Your task to perform on an android device: choose inbox layout in the gmail app Image 0: 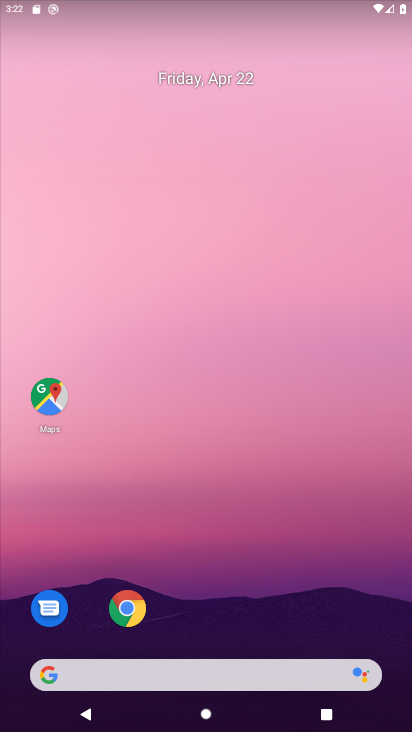
Step 0: drag from (255, 610) to (197, 184)
Your task to perform on an android device: choose inbox layout in the gmail app Image 1: 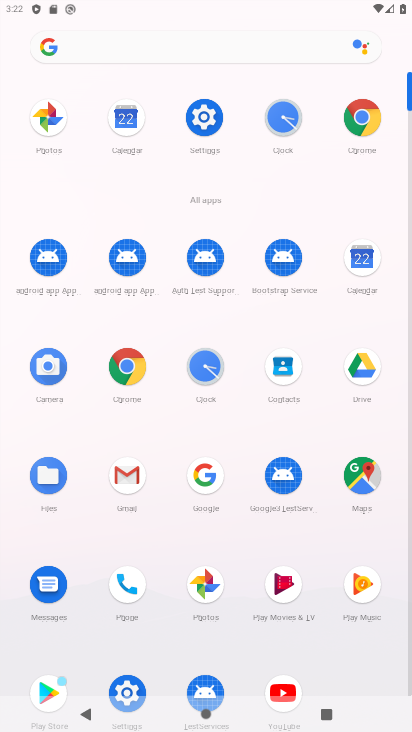
Step 1: click (121, 471)
Your task to perform on an android device: choose inbox layout in the gmail app Image 2: 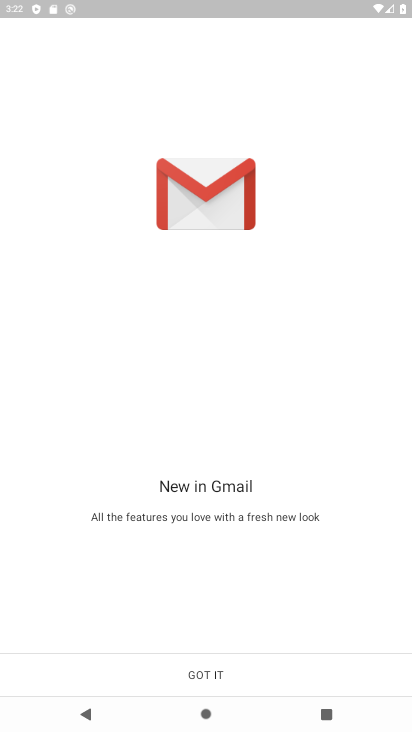
Step 2: click (216, 683)
Your task to perform on an android device: choose inbox layout in the gmail app Image 3: 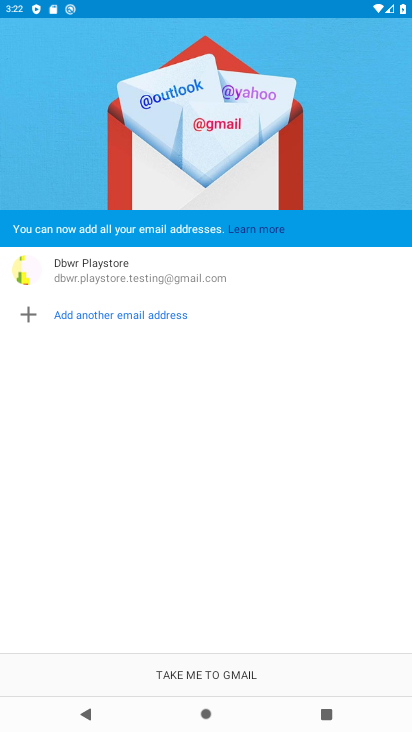
Step 3: click (216, 683)
Your task to perform on an android device: choose inbox layout in the gmail app Image 4: 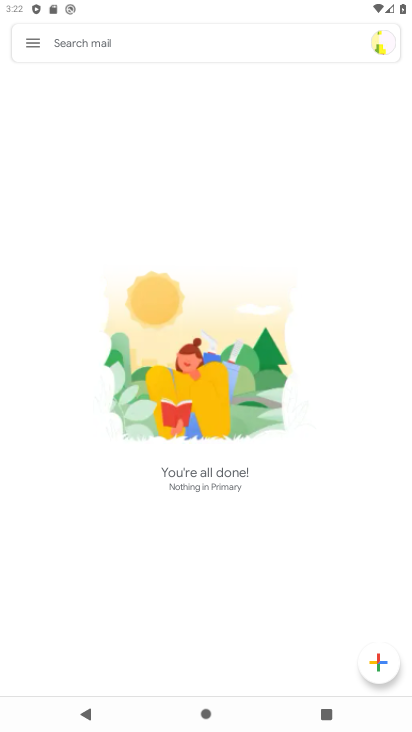
Step 4: click (32, 49)
Your task to perform on an android device: choose inbox layout in the gmail app Image 5: 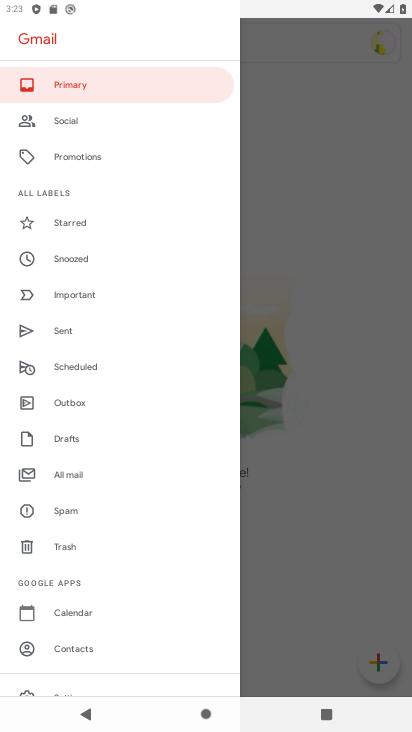
Step 5: drag from (168, 658) to (130, 327)
Your task to perform on an android device: choose inbox layout in the gmail app Image 6: 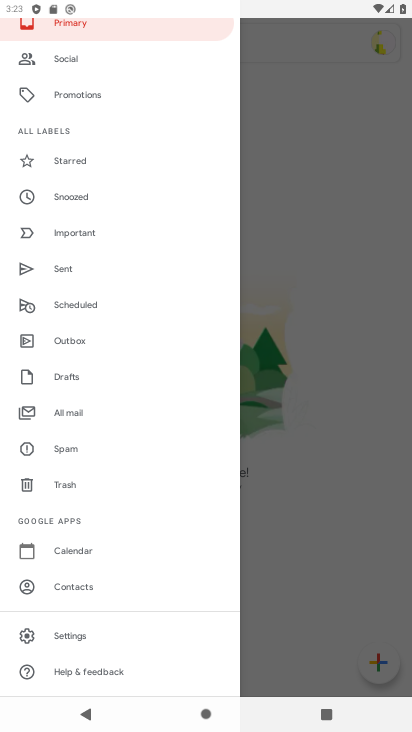
Step 6: click (123, 639)
Your task to perform on an android device: choose inbox layout in the gmail app Image 7: 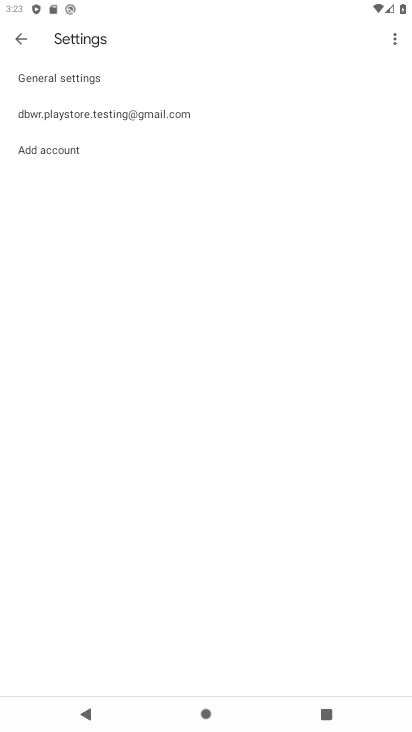
Step 7: click (167, 110)
Your task to perform on an android device: choose inbox layout in the gmail app Image 8: 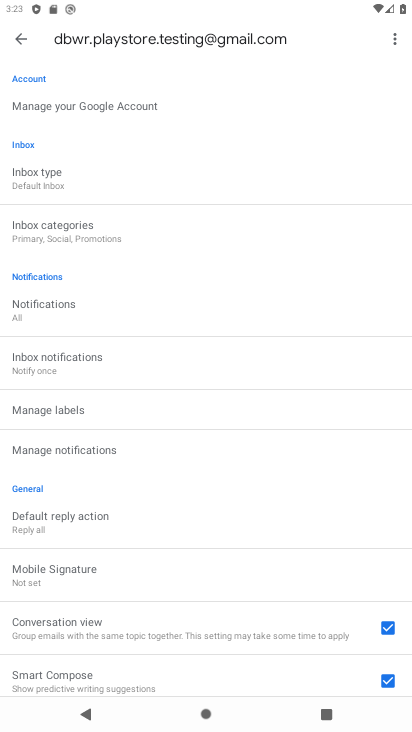
Step 8: click (141, 174)
Your task to perform on an android device: choose inbox layout in the gmail app Image 9: 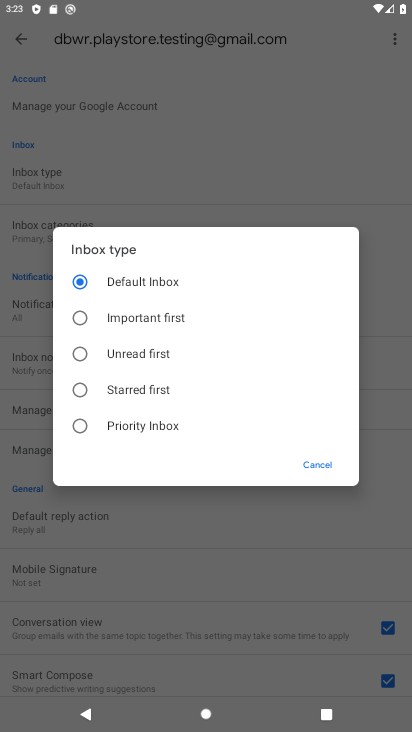
Step 9: click (150, 325)
Your task to perform on an android device: choose inbox layout in the gmail app Image 10: 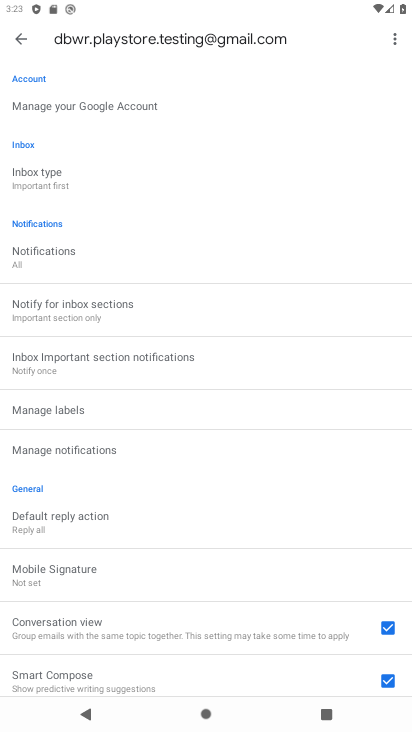
Step 10: task complete